Your task to perform on an android device: Search for Italian restaurants on Maps Image 0: 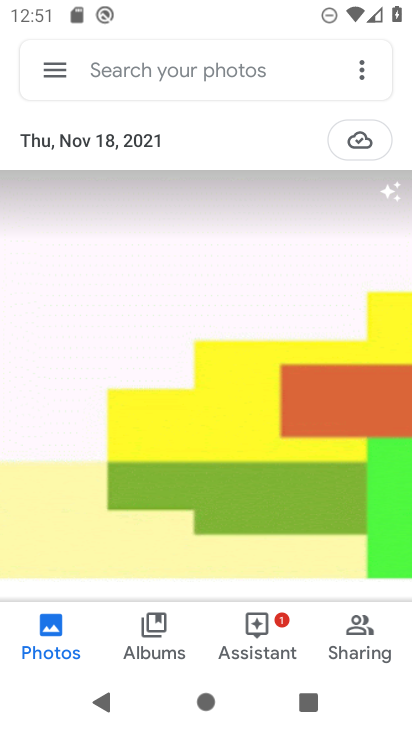
Step 0: press home button
Your task to perform on an android device: Search for Italian restaurants on Maps Image 1: 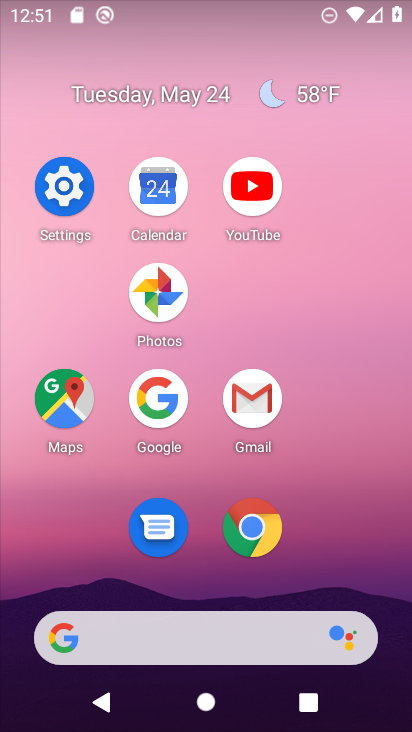
Step 1: click (69, 385)
Your task to perform on an android device: Search for Italian restaurants on Maps Image 2: 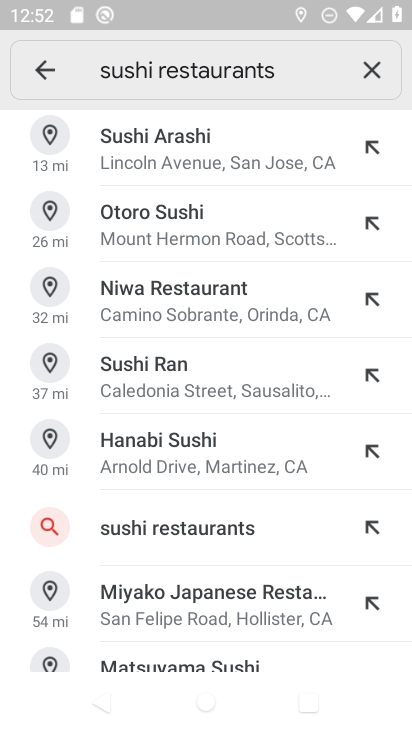
Step 2: click (380, 71)
Your task to perform on an android device: Search for Italian restaurants on Maps Image 3: 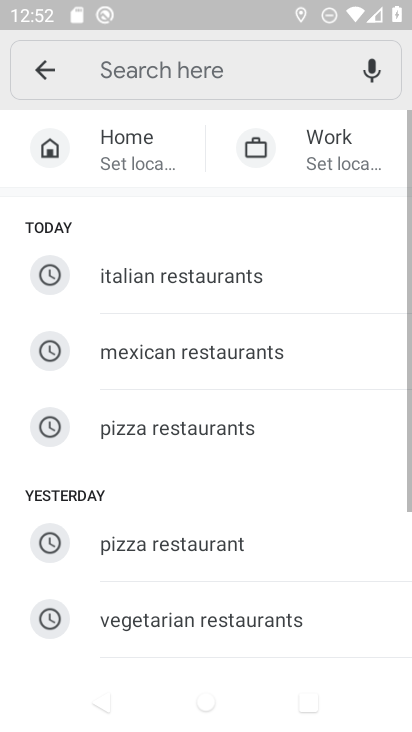
Step 3: click (226, 64)
Your task to perform on an android device: Search for Italian restaurants on Maps Image 4: 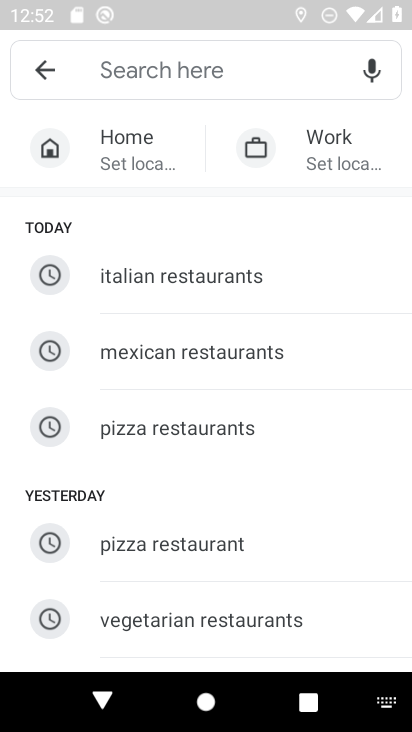
Step 4: click (260, 263)
Your task to perform on an android device: Search for Italian restaurants on Maps Image 5: 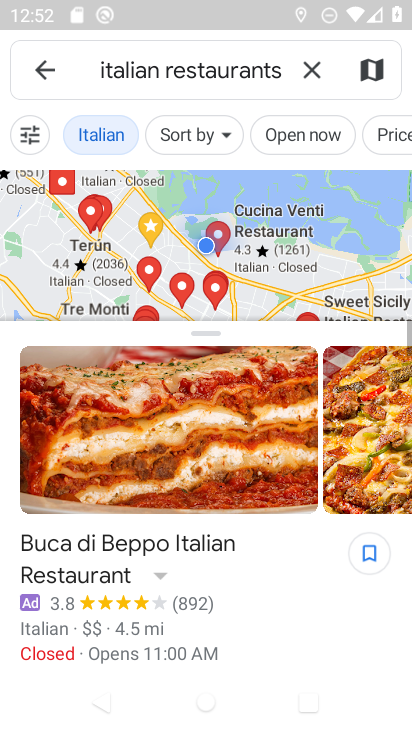
Step 5: task complete